Your task to perform on an android device: Search for Mexican restaurants on Maps Image 0: 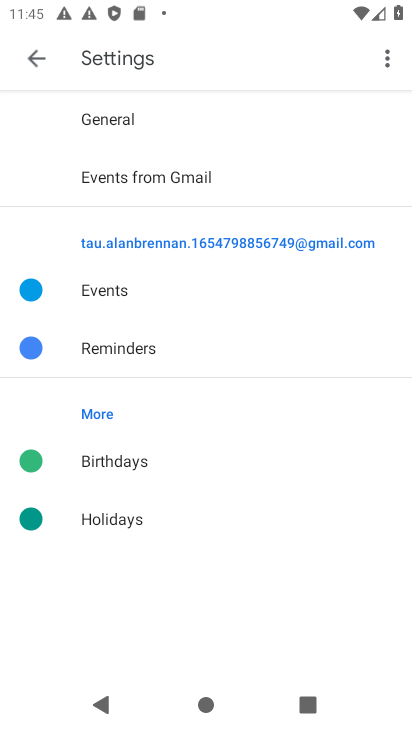
Step 0: click (34, 55)
Your task to perform on an android device: Search for Mexican restaurants on Maps Image 1: 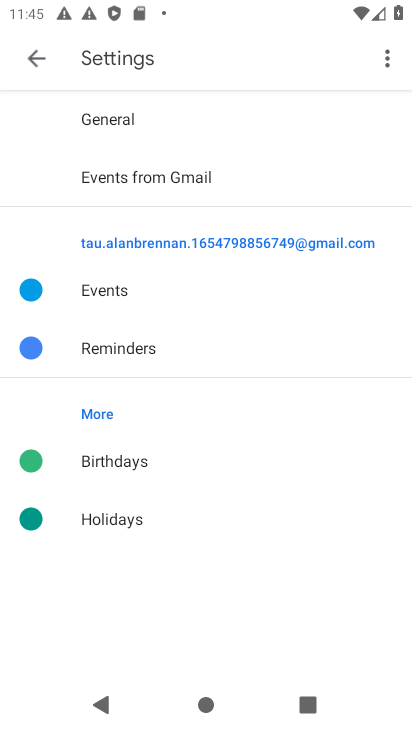
Step 1: click (36, 55)
Your task to perform on an android device: Search for Mexican restaurants on Maps Image 2: 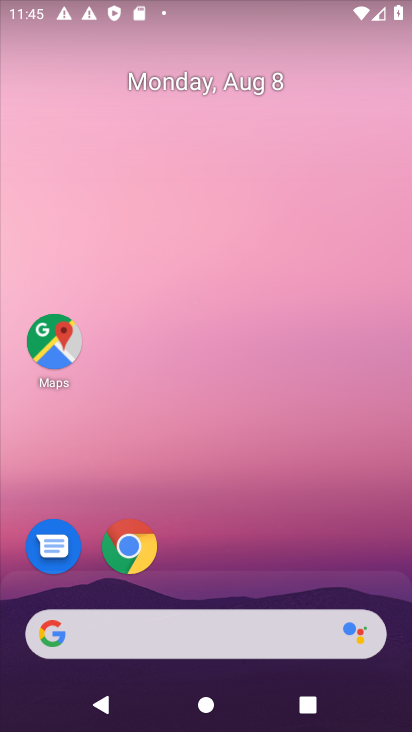
Step 2: drag from (152, 527) to (234, 236)
Your task to perform on an android device: Search for Mexican restaurants on Maps Image 3: 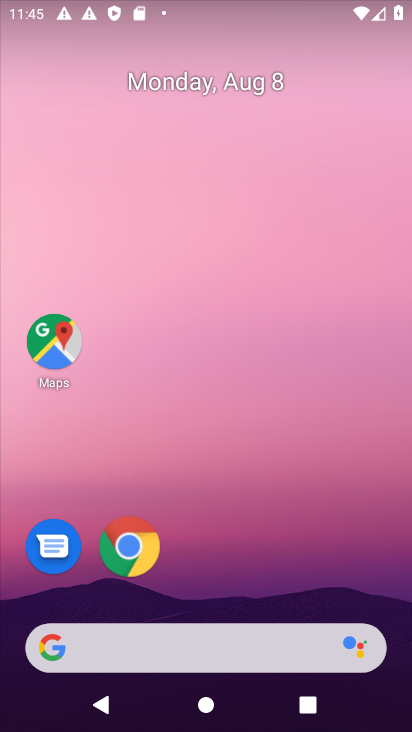
Step 3: drag from (265, 466) to (193, 217)
Your task to perform on an android device: Search for Mexican restaurants on Maps Image 4: 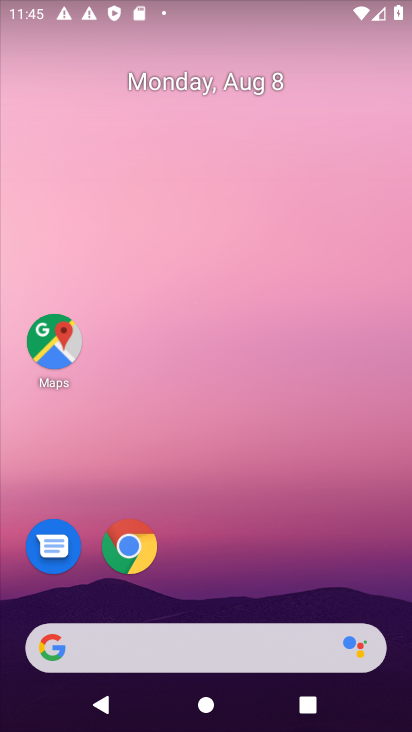
Step 4: click (240, 197)
Your task to perform on an android device: Search for Mexican restaurants on Maps Image 5: 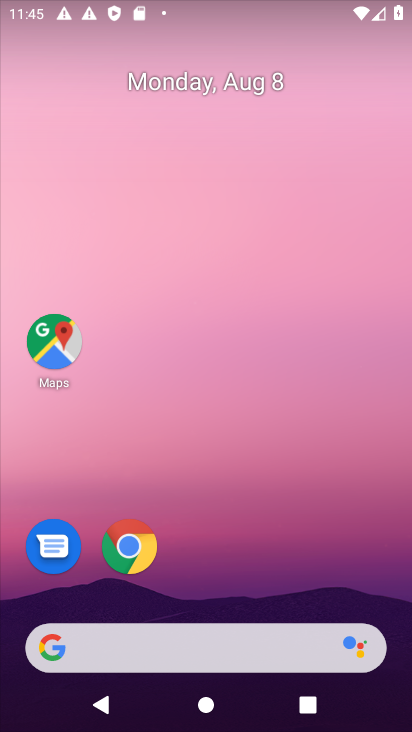
Step 5: click (145, 127)
Your task to perform on an android device: Search for Mexican restaurants on Maps Image 6: 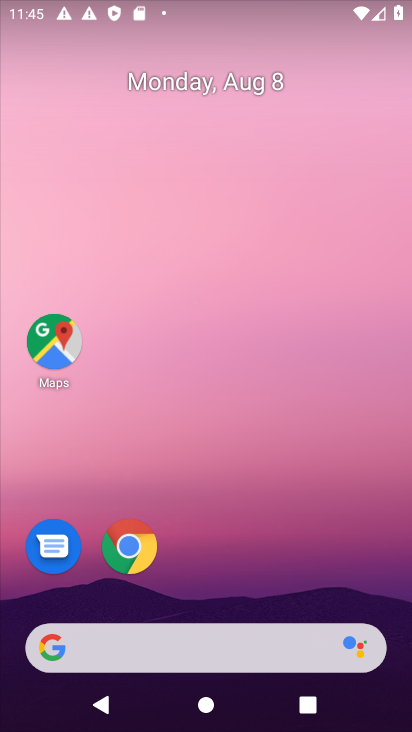
Step 6: click (56, 345)
Your task to perform on an android device: Search for Mexican restaurants on Maps Image 7: 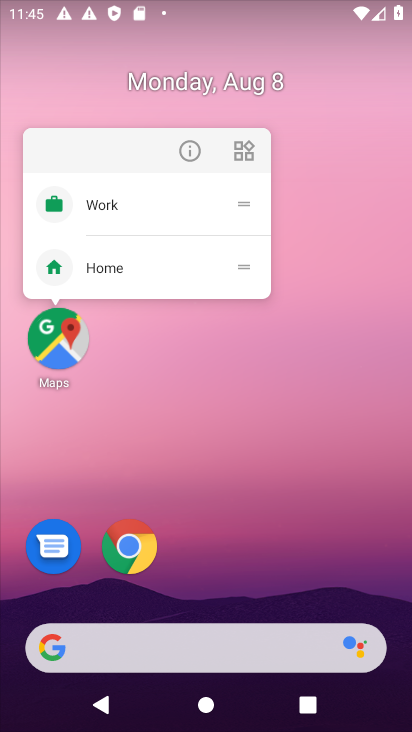
Step 7: click (112, 211)
Your task to perform on an android device: Search for Mexican restaurants on Maps Image 8: 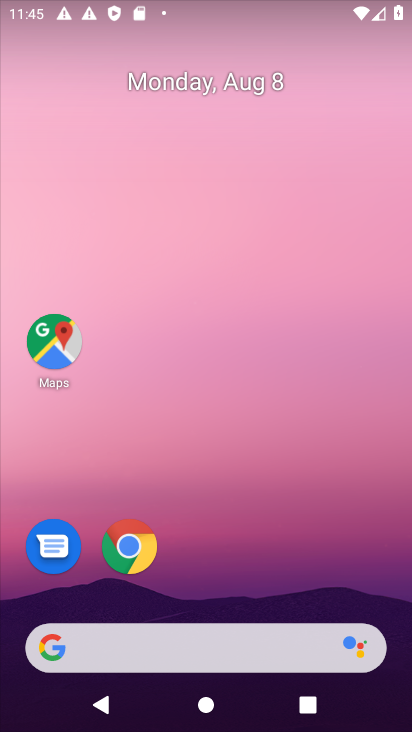
Step 8: drag from (190, 570) to (146, 235)
Your task to perform on an android device: Search for Mexican restaurants on Maps Image 9: 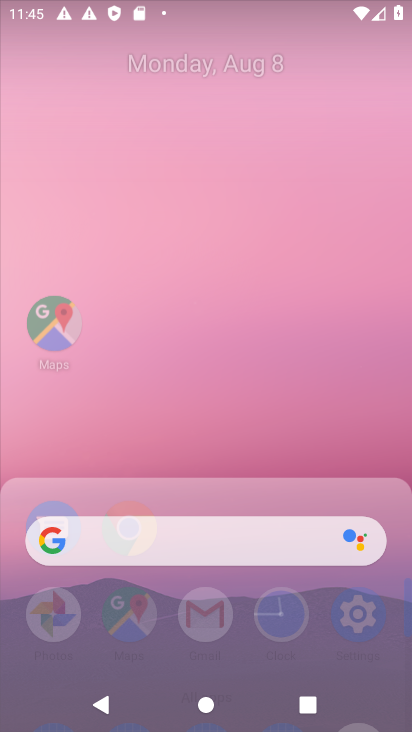
Step 9: click (170, 289)
Your task to perform on an android device: Search for Mexican restaurants on Maps Image 10: 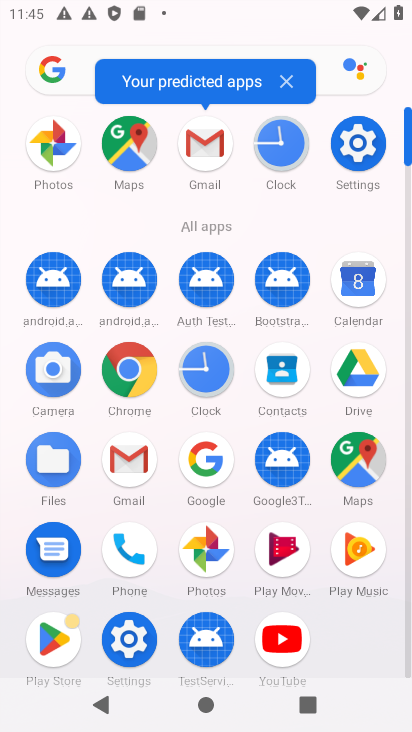
Step 10: click (358, 462)
Your task to perform on an android device: Search for Mexican restaurants on Maps Image 11: 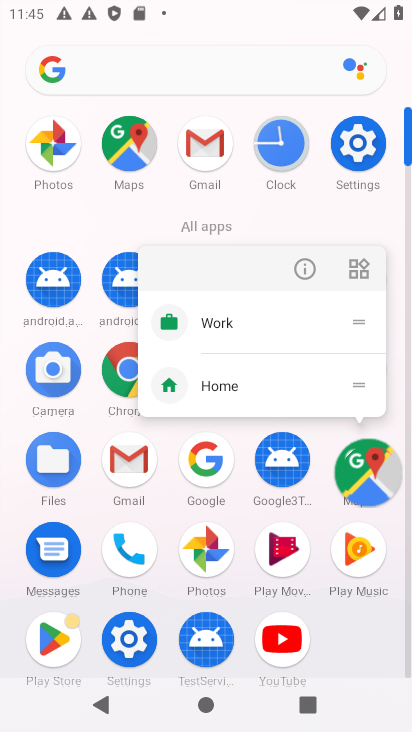
Step 11: click (380, 468)
Your task to perform on an android device: Search for Mexican restaurants on Maps Image 12: 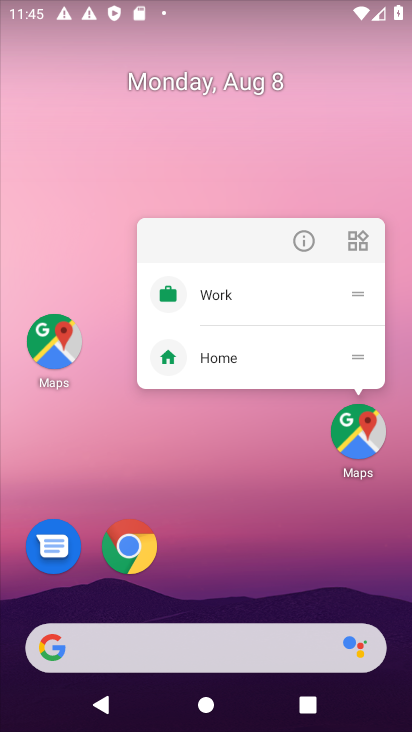
Step 12: drag from (382, 430) to (348, 409)
Your task to perform on an android device: Search for Mexican restaurants on Maps Image 13: 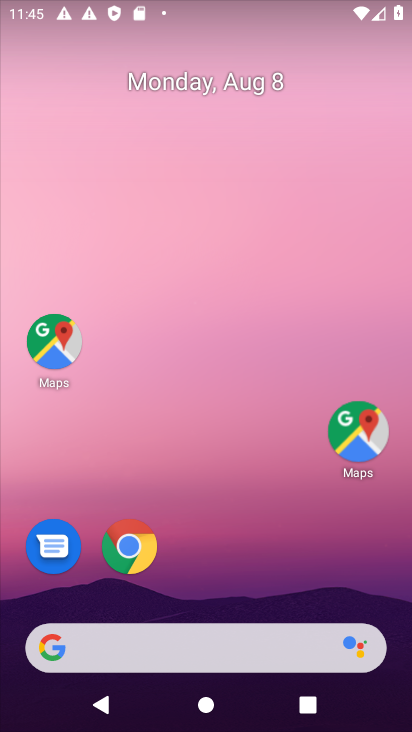
Step 13: click (210, 288)
Your task to perform on an android device: Search for Mexican restaurants on Maps Image 14: 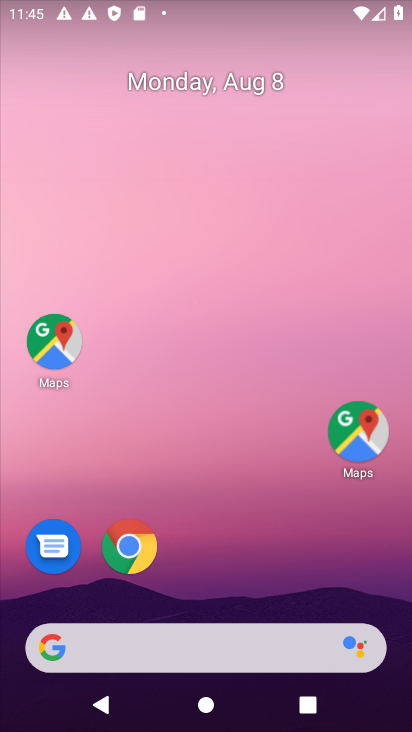
Step 14: click (380, 435)
Your task to perform on an android device: Search for Mexican restaurants on Maps Image 15: 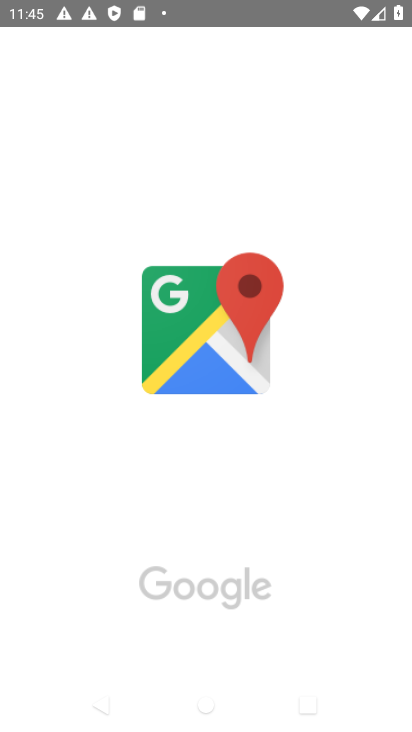
Step 15: click (354, 427)
Your task to perform on an android device: Search for Mexican restaurants on Maps Image 16: 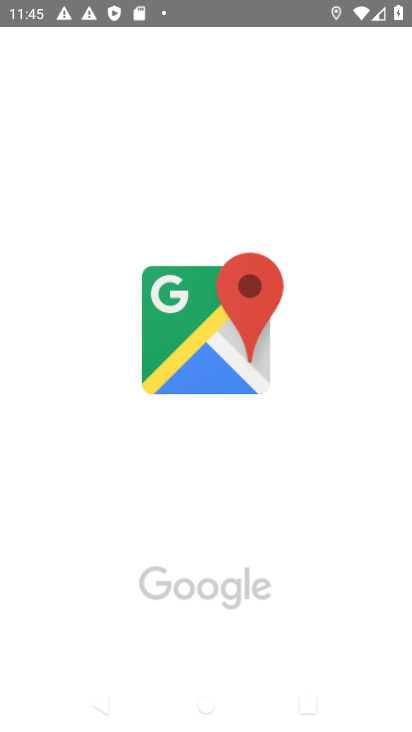
Step 16: click (197, 318)
Your task to perform on an android device: Search for Mexican restaurants on Maps Image 17: 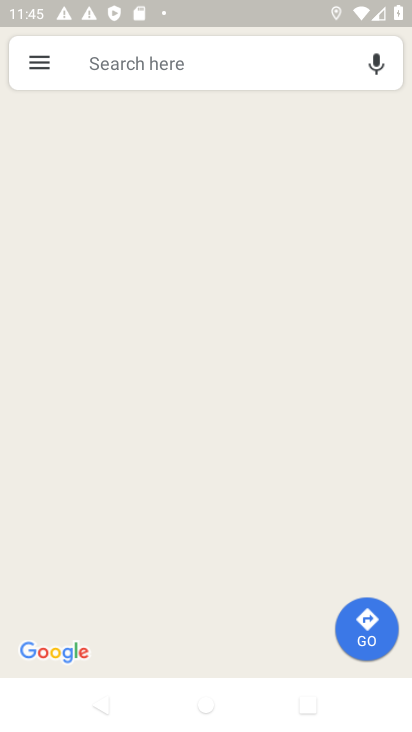
Step 17: click (206, 321)
Your task to perform on an android device: Search for Mexican restaurants on Maps Image 18: 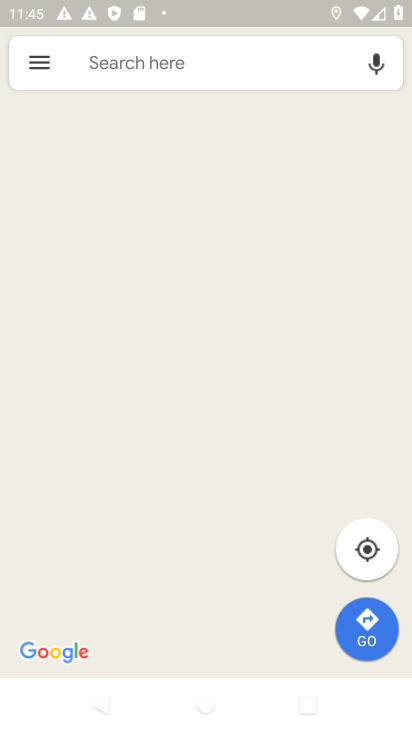
Step 18: click (95, 61)
Your task to perform on an android device: Search for Mexican restaurants on Maps Image 19: 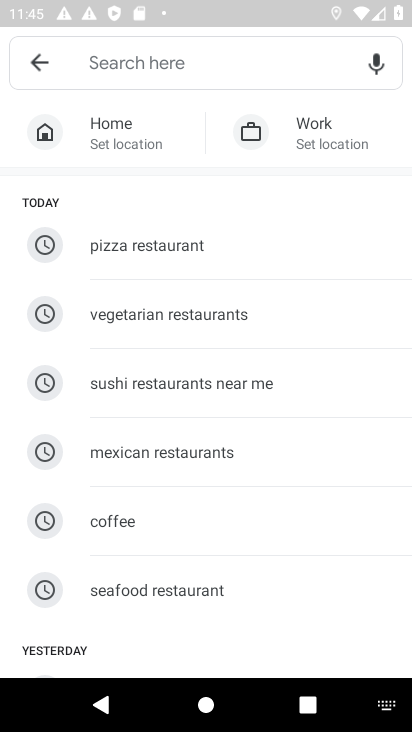
Step 19: click (172, 457)
Your task to perform on an android device: Search for Mexican restaurants on Maps Image 20: 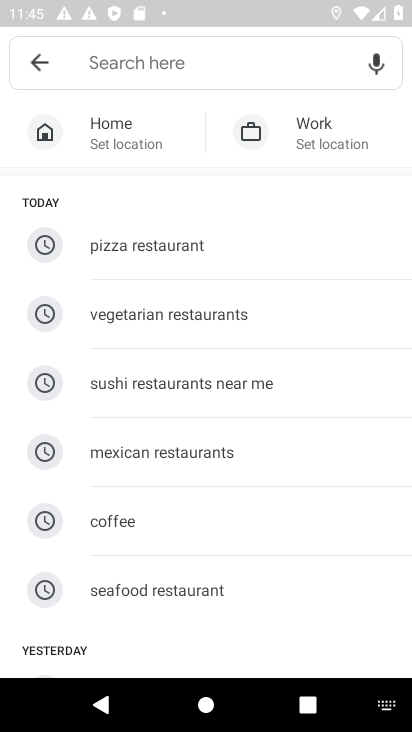
Step 20: click (172, 457)
Your task to perform on an android device: Search for Mexican restaurants on Maps Image 21: 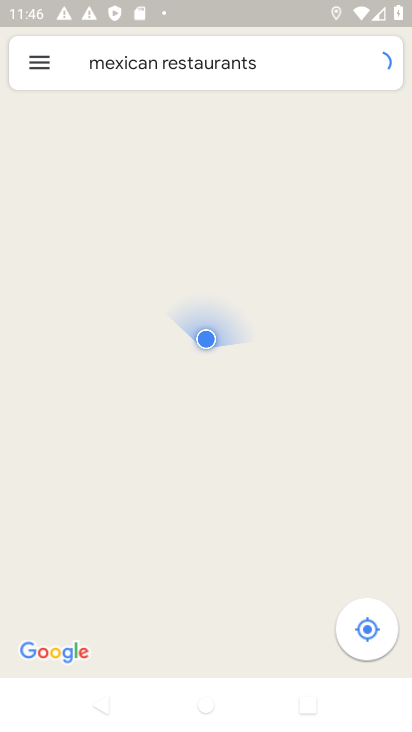
Step 21: task complete